Your task to perform on an android device: set default search engine in the chrome app Image 0: 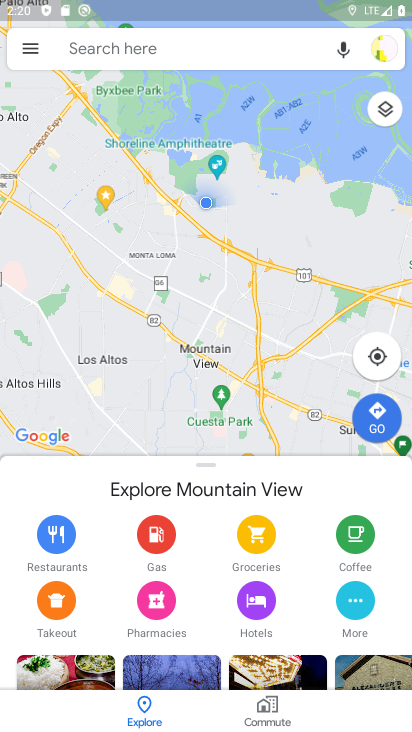
Step 0: press home button
Your task to perform on an android device: set default search engine in the chrome app Image 1: 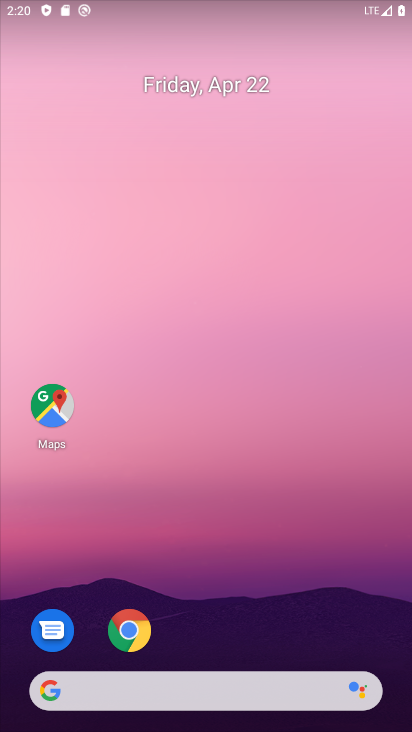
Step 1: drag from (361, 589) to (367, 256)
Your task to perform on an android device: set default search engine in the chrome app Image 2: 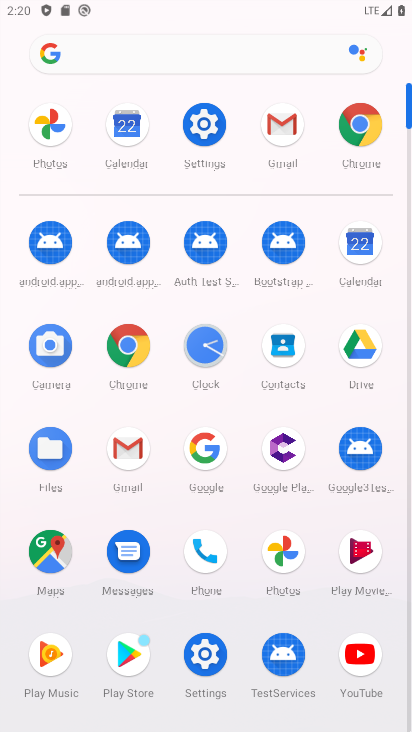
Step 2: click (371, 136)
Your task to perform on an android device: set default search engine in the chrome app Image 3: 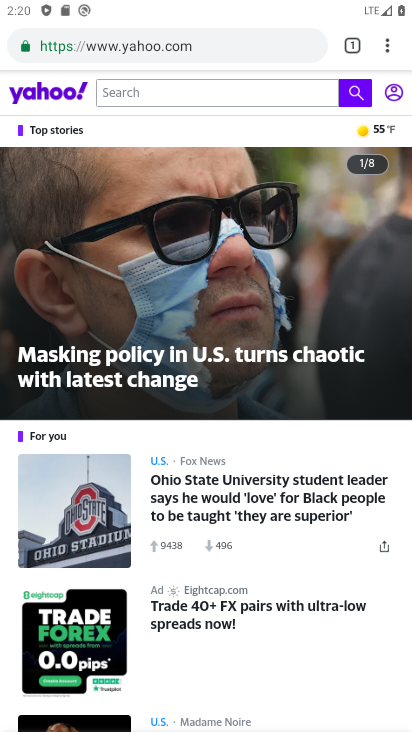
Step 3: drag from (393, 55) to (254, 600)
Your task to perform on an android device: set default search engine in the chrome app Image 4: 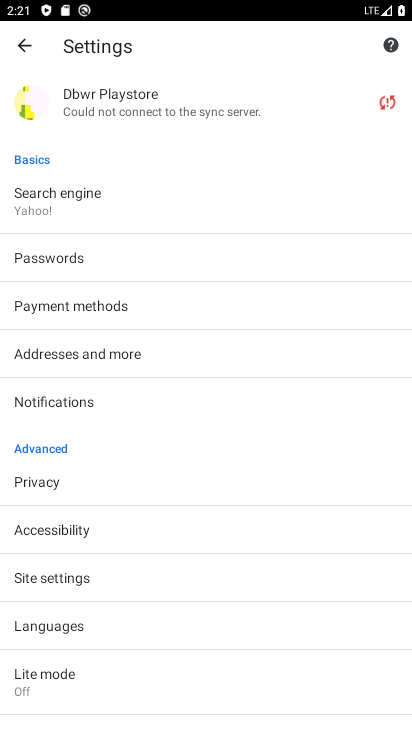
Step 4: click (91, 210)
Your task to perform on an android device: set default search engine in the chrome app Image 5: 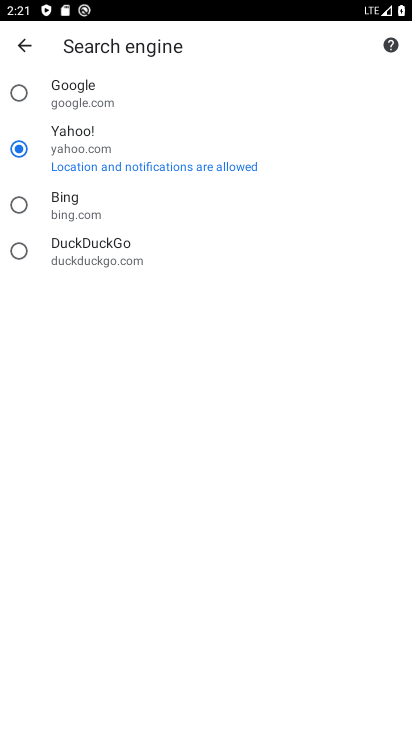
Step 5: click (22, 90)
Your task to perform on an android device: set default search engine in the chrome app Image 6: 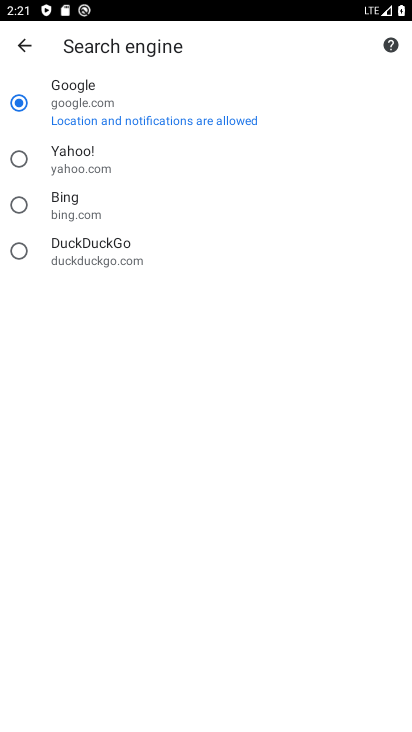
Step 6: task complete